Your task to perform on an android device: Check the weather Image 0: 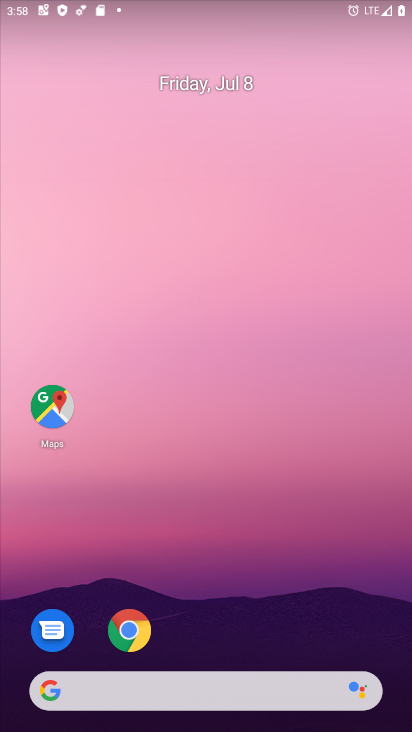
Step 0: drag from (208, 646) to (231, 145)
Your task to perform on an android device: Check the weather Image 1: 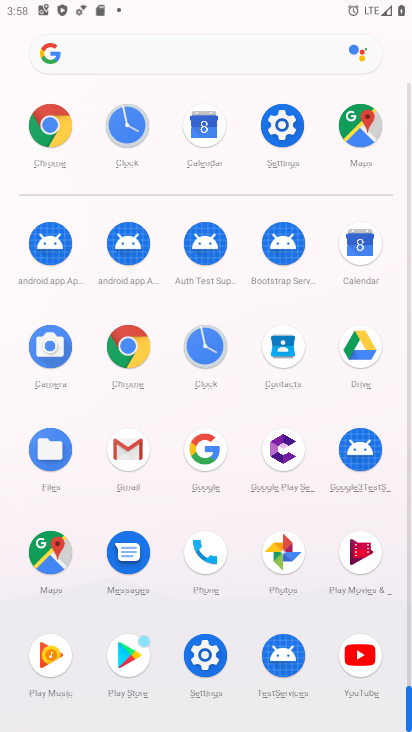
Step 1: click (203, 447)
Your task to perform on an android device: Check the weather Image 2: 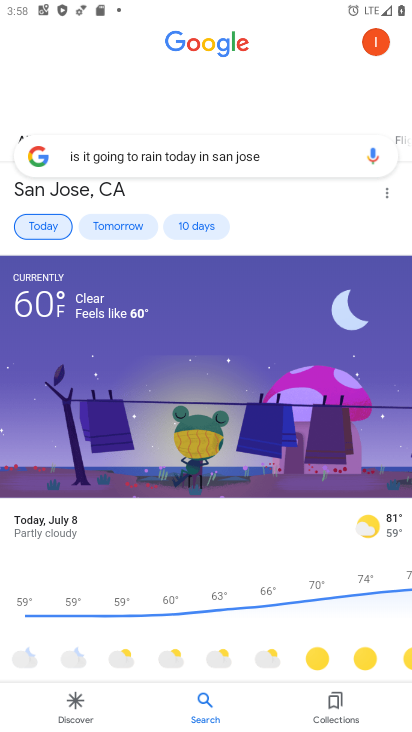
Step 2: task complete